Your task to perform on an android device: toggle show notifications on the lock screen Image 0: 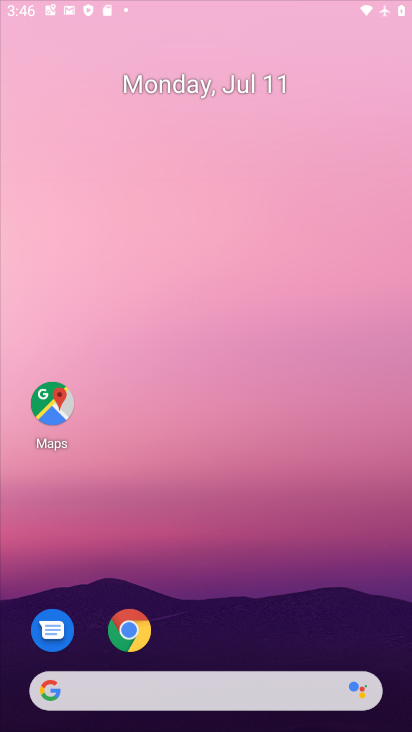
Step 0: drag from (238, 538) to (166, 164)
Your task to perform on an android device: toggle show notifications on the lock screen Image 1: 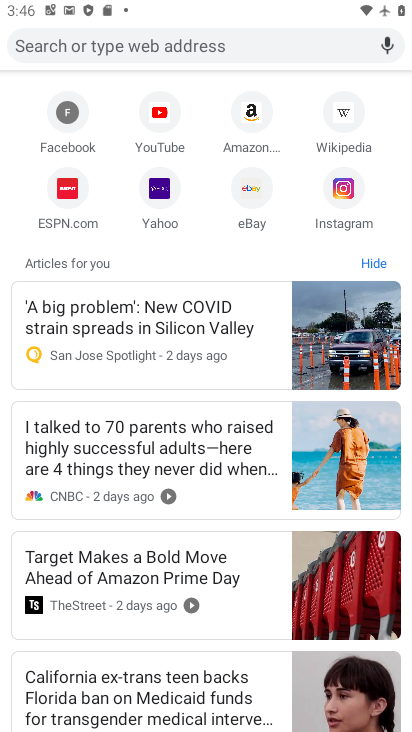
Step 1: press back button
Your task to perform on an android device: toggle show notifications on the lock screen Image 2: 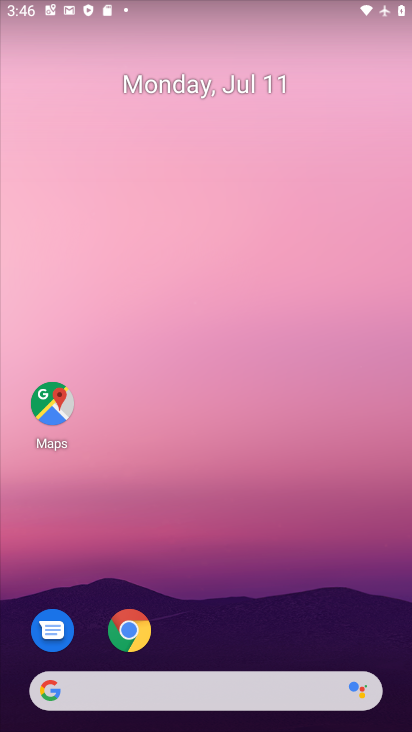
Step 2: drag from (276, 651) to (239, 141)
Your task to perform on an android device: toggle show notifications on the lock screen Image 3: 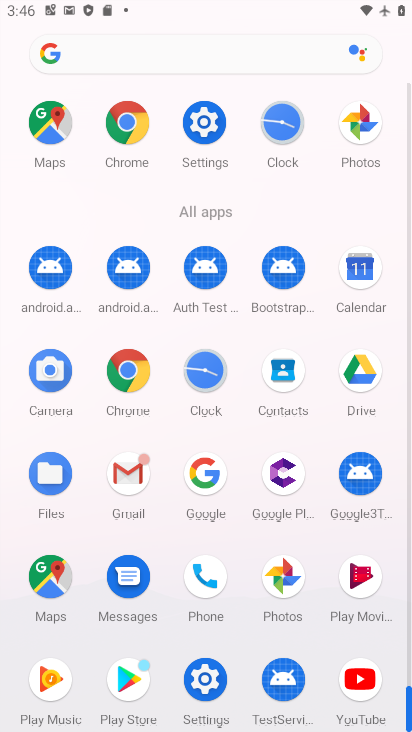
Step 3: click (210, 688)
Your task to perform on an android device: toggle show notifications on the lock screen Image 4: 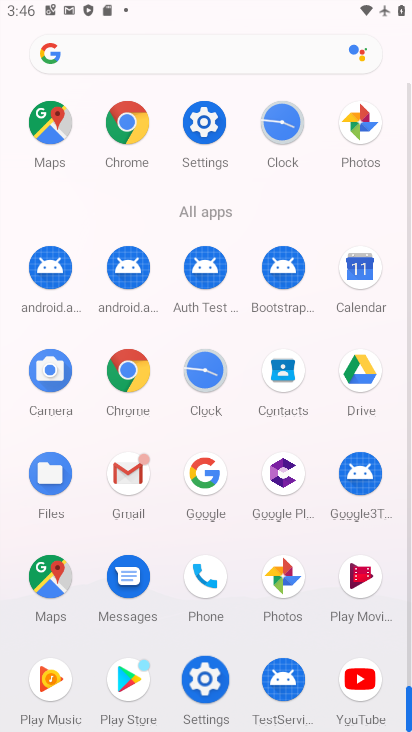
Step 4: click (209, 687)
Your task to perform on an android device: toggle show notifications on the lock screen Image 5: 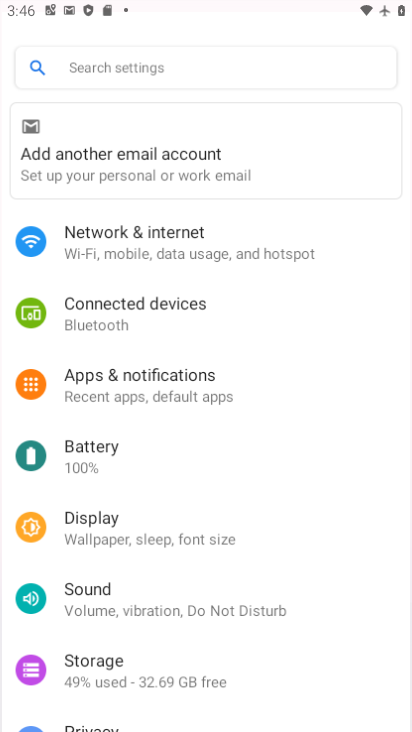
Step 5: click (209, 687)
Your task to perform on an android device: toggle show notifications on the lock screen Image 6: 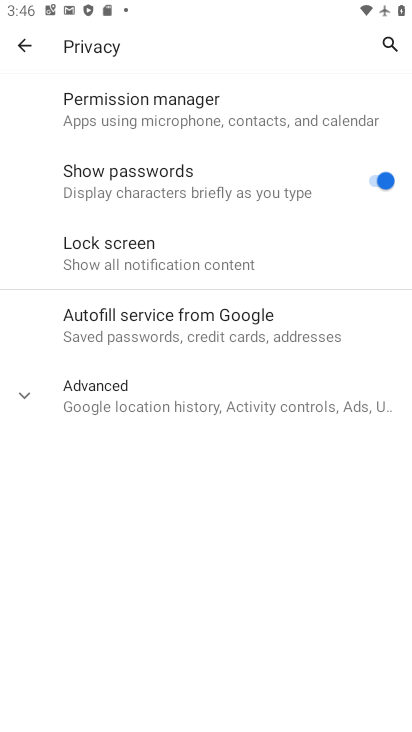
Step 6: click (31, 47)
Your task to perform on an android device: toggle show notifications on the lock screen Image 7: 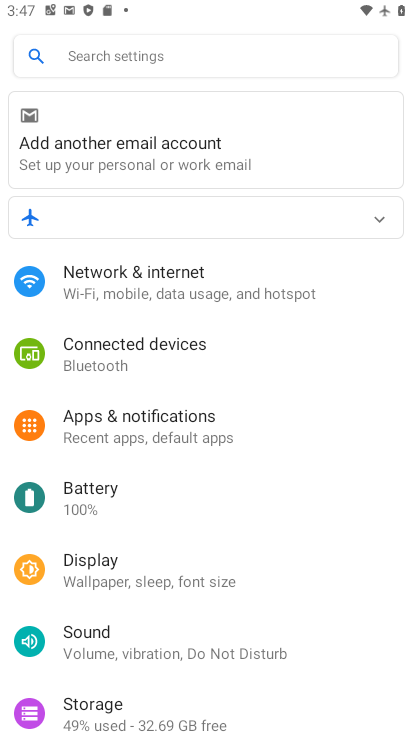
Step 7: click (146, 432)
Your task to perform on an android device: toggle show notifications on the lock screen Image 8: 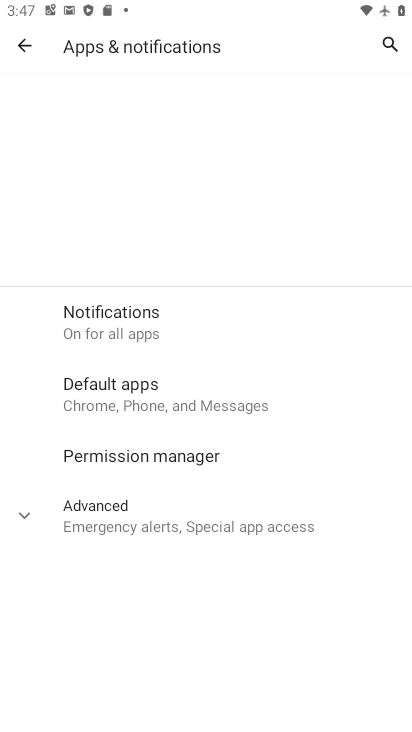
Step 8: click (153, 430)
Your task to perform on an android device: toggle show notifications on the lock screen Image 9: 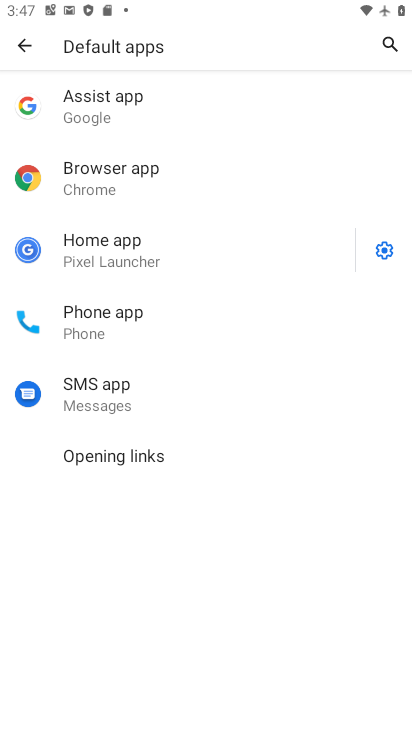
Step 9: click (27, 46)
Your task to perform on an android device: toggle show notifications on the lock screen Image 10: 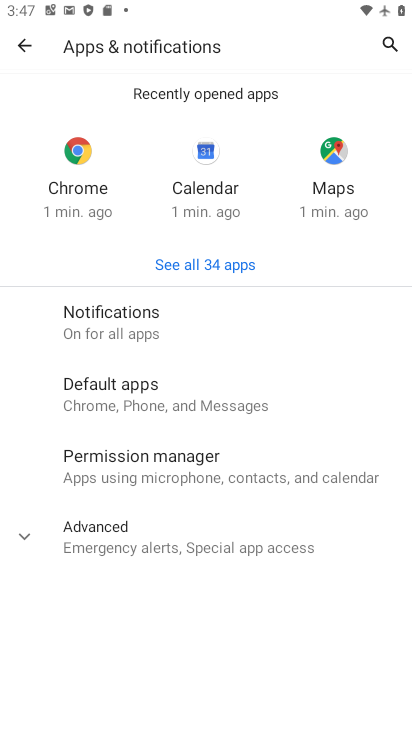
Step 10: click (100, 315)
Your task to perform on an android device: toggle show notifications on the lock screen Image 11: 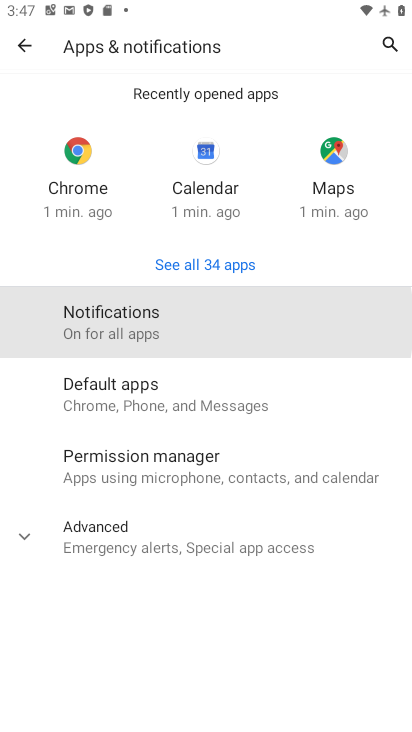
Step 11: click (101, 317)
Your task to perform on an android device: toggle show notifications on the lock screen Image 12: 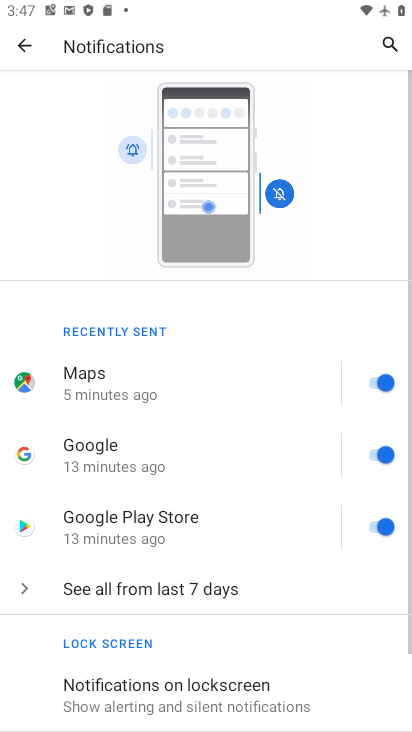
Step 12: drag from (197, 594) to (173, 265)
Your task to perform on an android device: toggle show notifications on the lock screen Image 13: 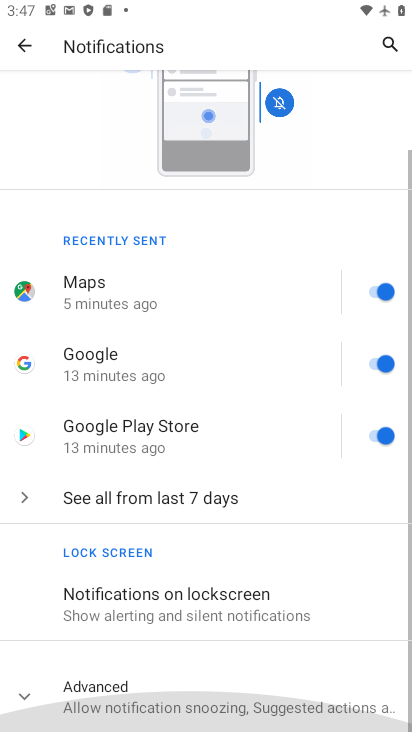
Step 13: drag from (188, 537) to (191, 250)
Your task to perform on an android device: toggle show notifications on the lock screen Image 14: 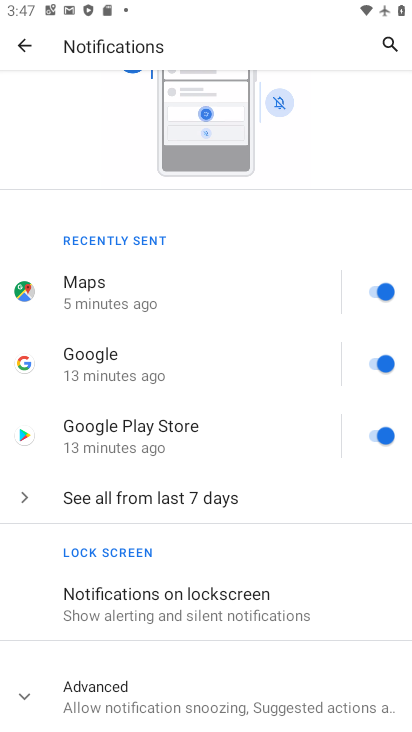
Step 14: click (173, 607)
Your task to perform on an android device: toggle show notifications on the lock screen Image 15: 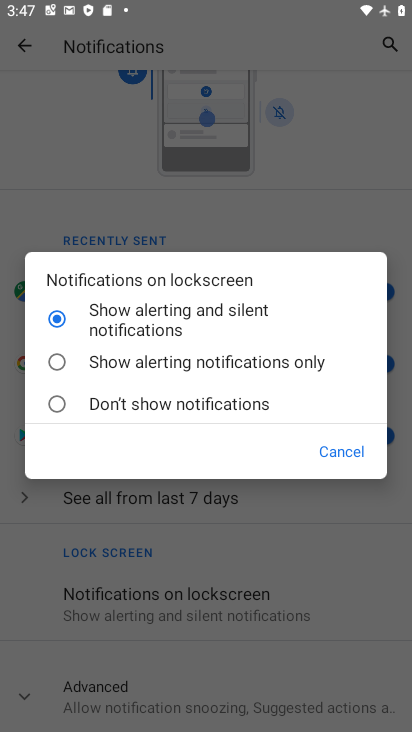
Step 15: click (53, 359)
Your task to perform on an android device: toggle show notifications on the lock screen Image 16: 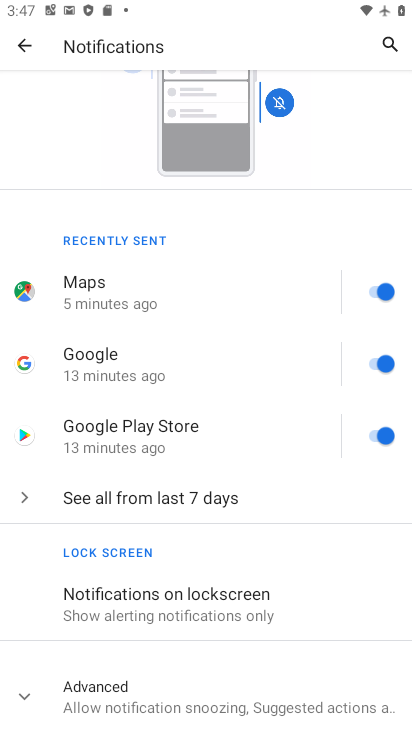
Step 16: task complete